Your task to perform on an android device: open app "YouTube Kids" (install if not already installed) and go to login screen Image 0: 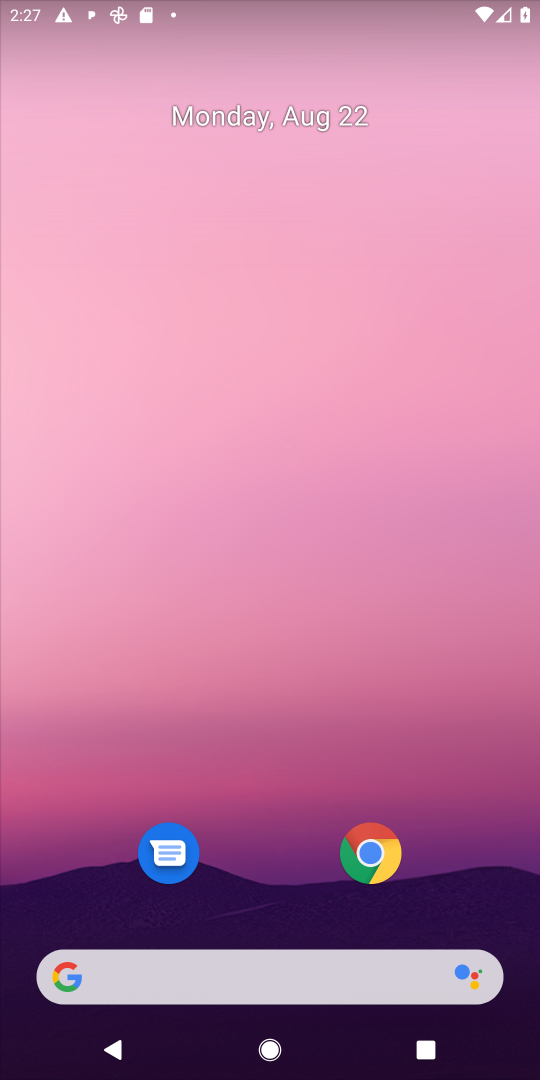
Step 0: drag from (346, 886) to (319, 41)
Your task to perform on an android device: open app "YouTube Kids" (install if not already installed) and go to login screen Image 1: 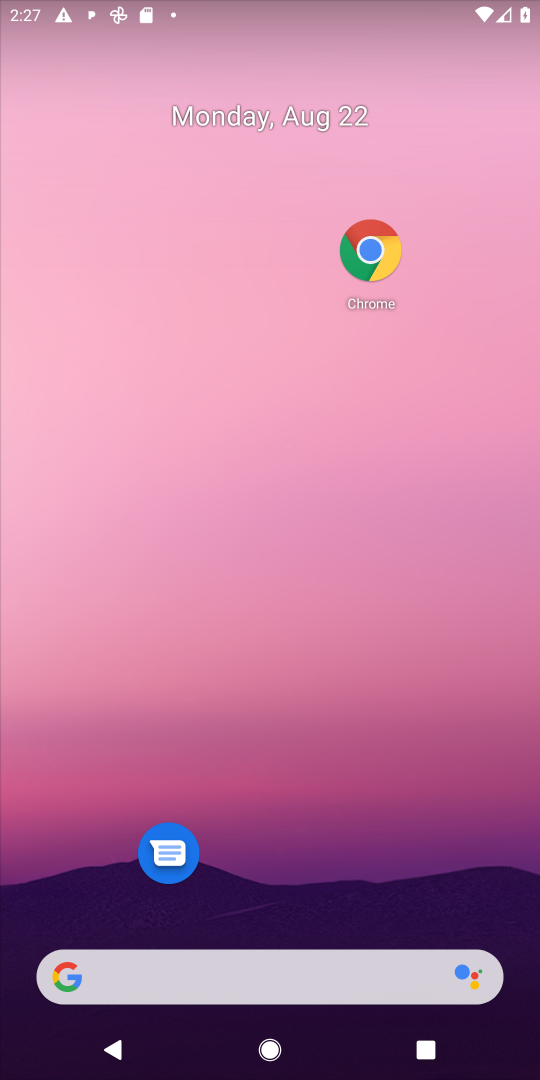
Step 1: drag from (304, 864) to (410, 90)
Your task to perform on an android device: open app "YouTube Kids" (install if not already installed) and go to login screen Image 2: 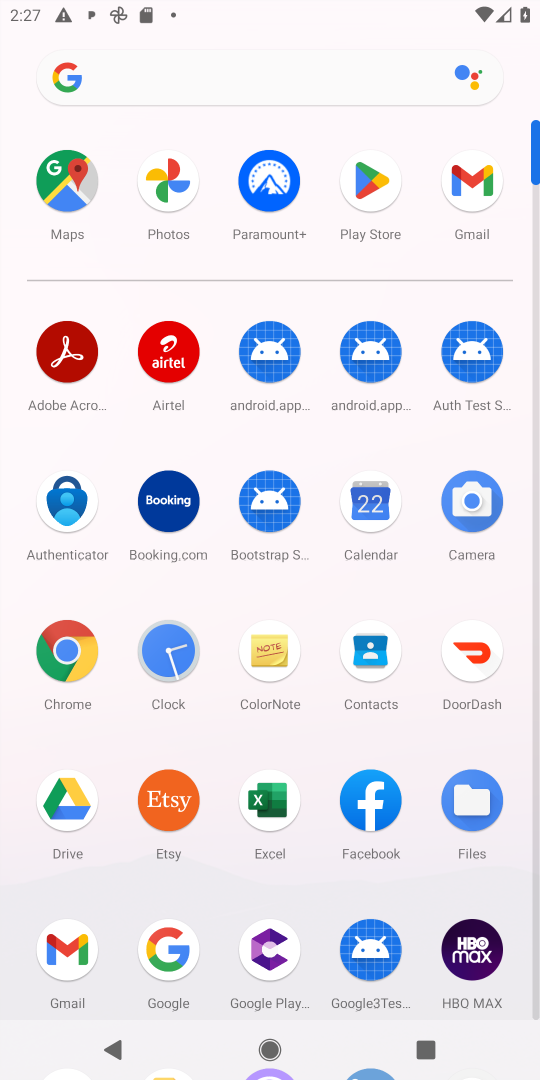
Step 2: click (362, 169)
Your task to perform on an android device: open app "YouTube Kids" (install if not already installed) and go to login screen Image 3: 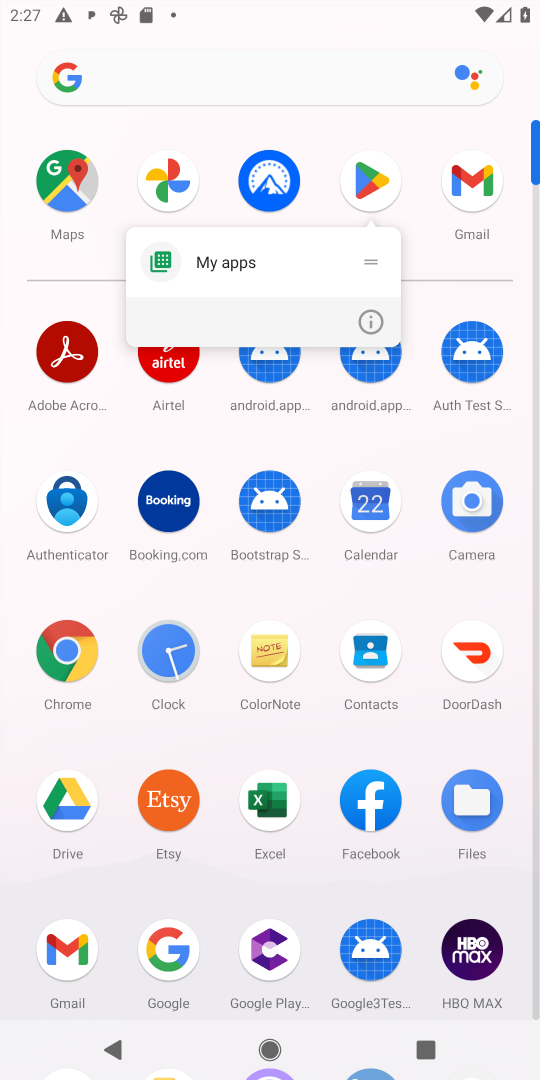
Step 3: click (357, 175)
Your task to perform on an android device: open app "YouTube Kids" (install if not already installed) and go to login screen Image 4: 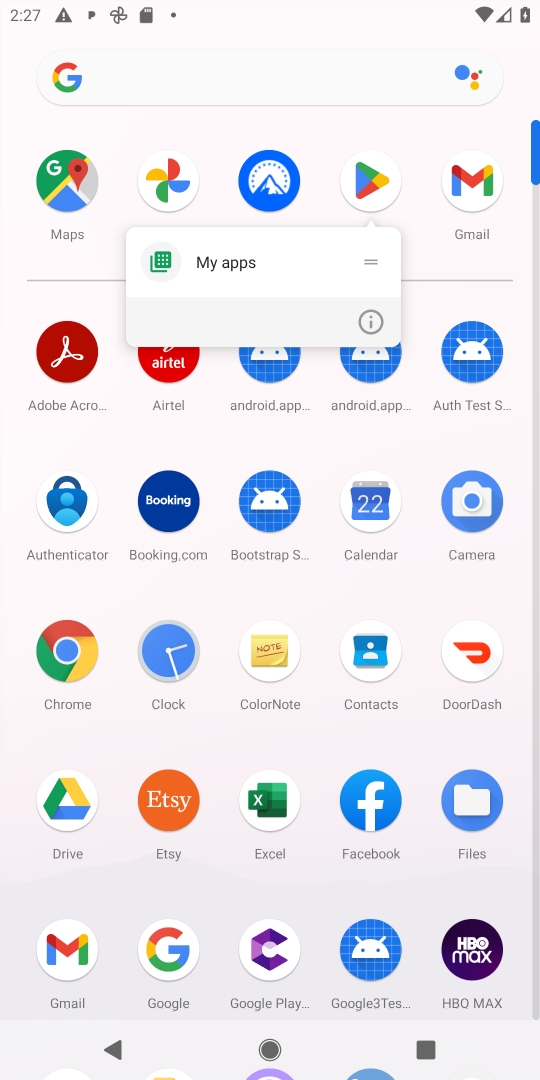
Step 4: click (370, 181)
Your task to perform on an android device: open app "YouTube Kids" (install if not already installed) and go to login screen Image 5: 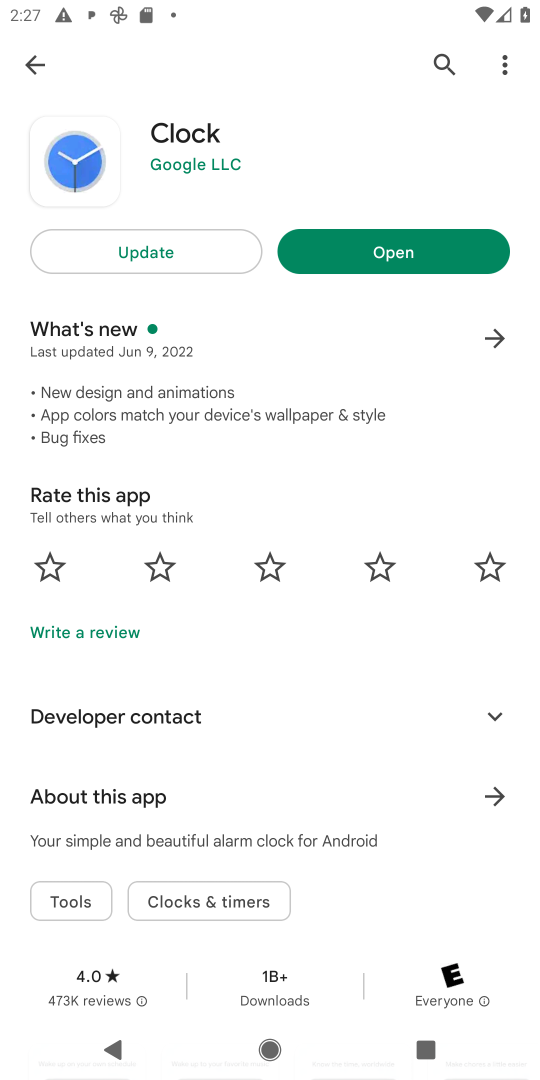
Step 5: click (370, 181)
Your task to perform on an android device: open app "YouTube Kids" (install if not already installed) and go to login screen Image 6: 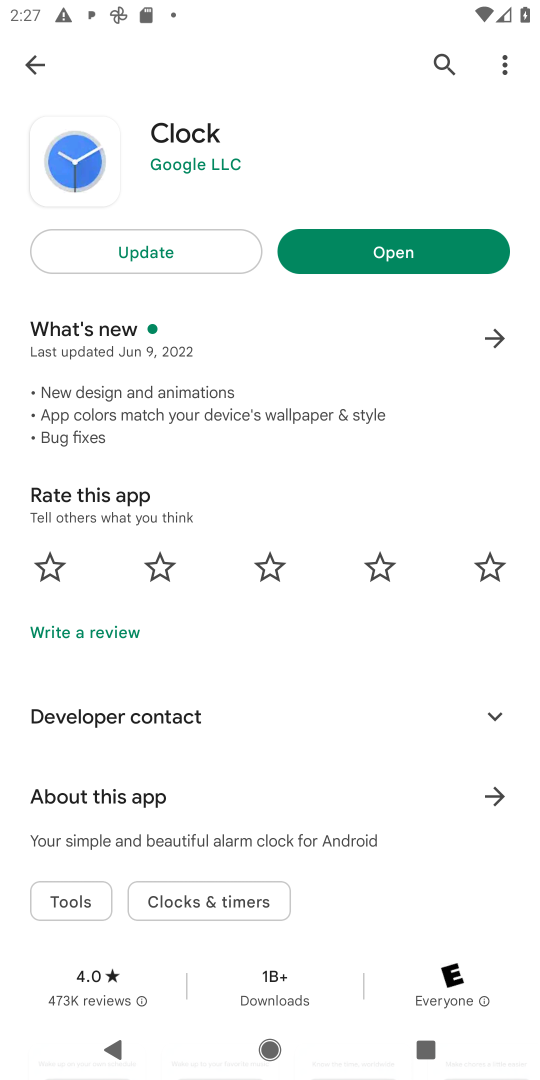
Step 6: click (57, 56)
Your task to perform on an android device: open app "YouTube Kids" (install if not already installed) and go to login screen Image 7: 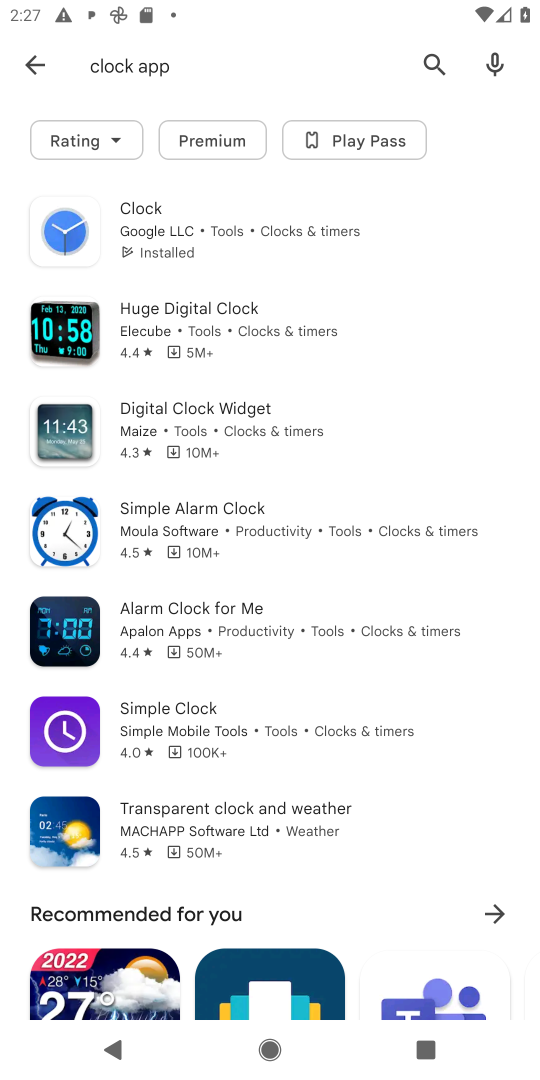
Step 7: click (44, 67)
Your task to perform on an android device: open app "YouTube Kids" (install if not already installed) and go to login screen Image 8: 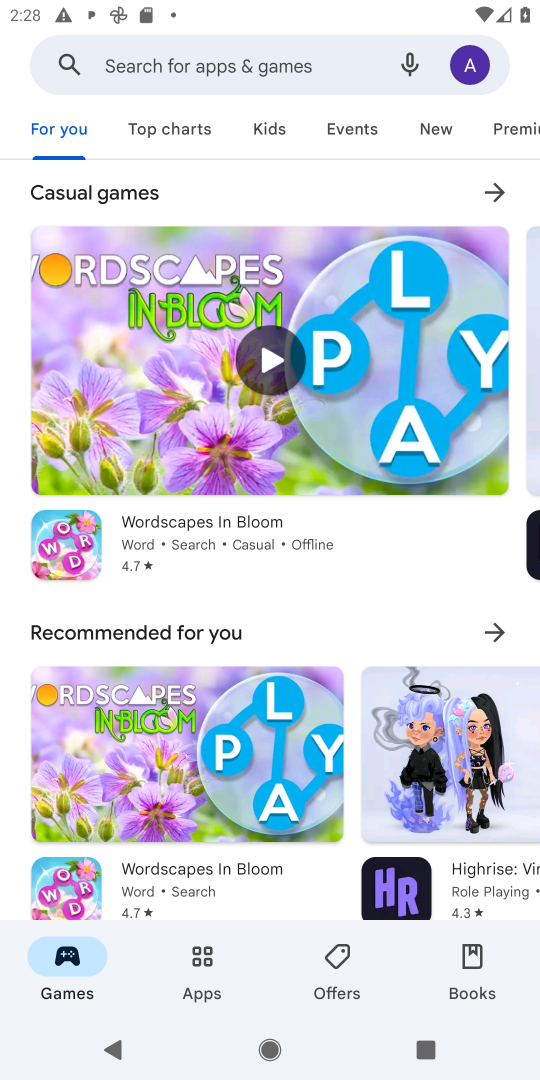
Step 8: click (222, 58)
Your task to perform on an android device: open app "YouTube Kids" (install if not already installed) and go to login screen Image 9: 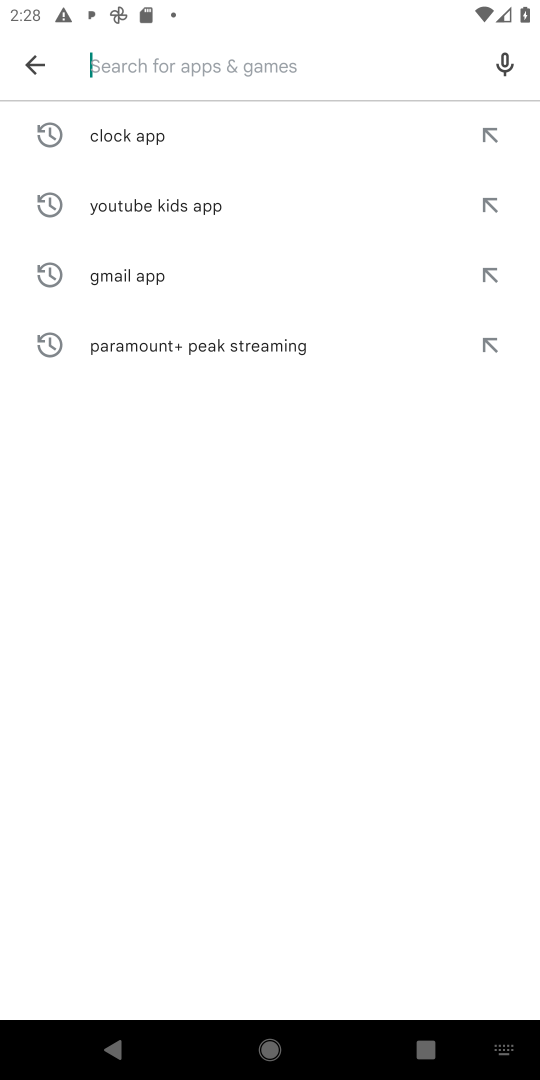
Step 9: type "YouTube Kids "
Your task to perform on an android device: open app "YouTube Kids" (install if not already installed) and go to login screen Image 10: 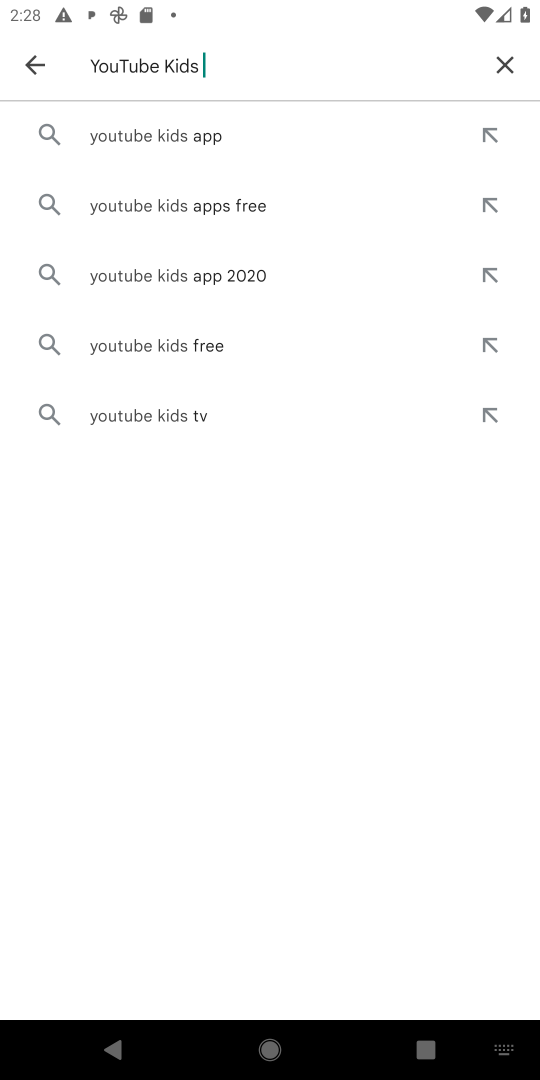
Step 10: click (193, 125)
Your task to perform on an android device: open app "YouTube Kids" (install if not already installed) and go to login screen Image 11: 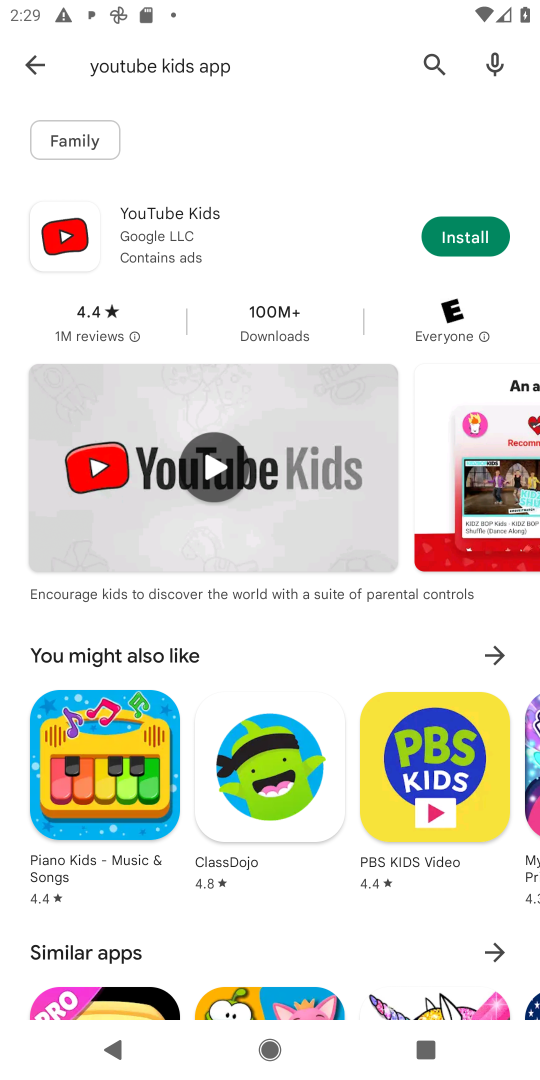
Step 11: click (481, 230)
Your task to perform on an android device: open app "YouTube Kids" (install if not already installed) and go to login screen Image 12: 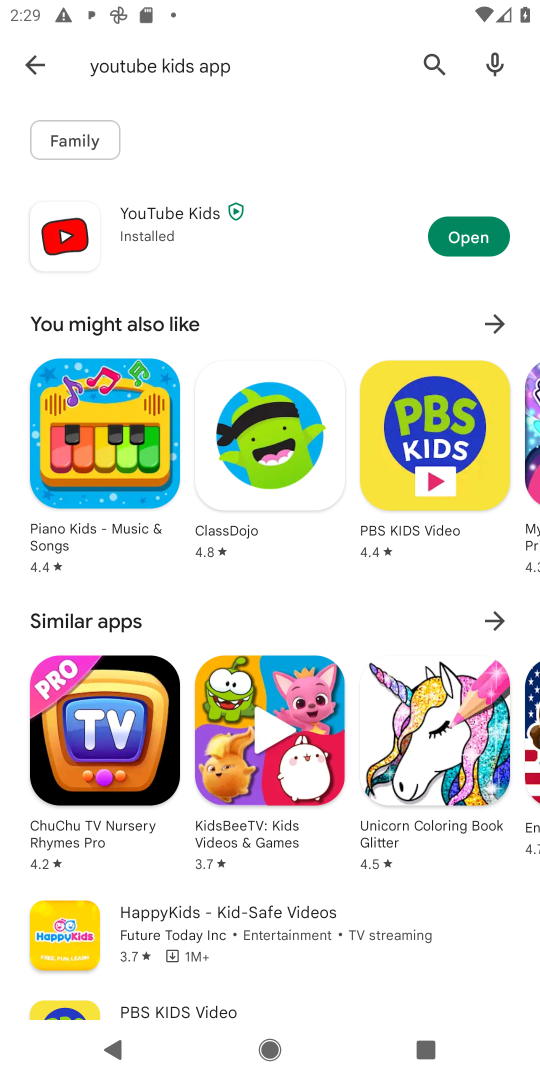
Step 12: click (481, 230)
Your task to perform on an android device: open app "YouTube Kids" (install if not already installed) and go to login screen Image 13: 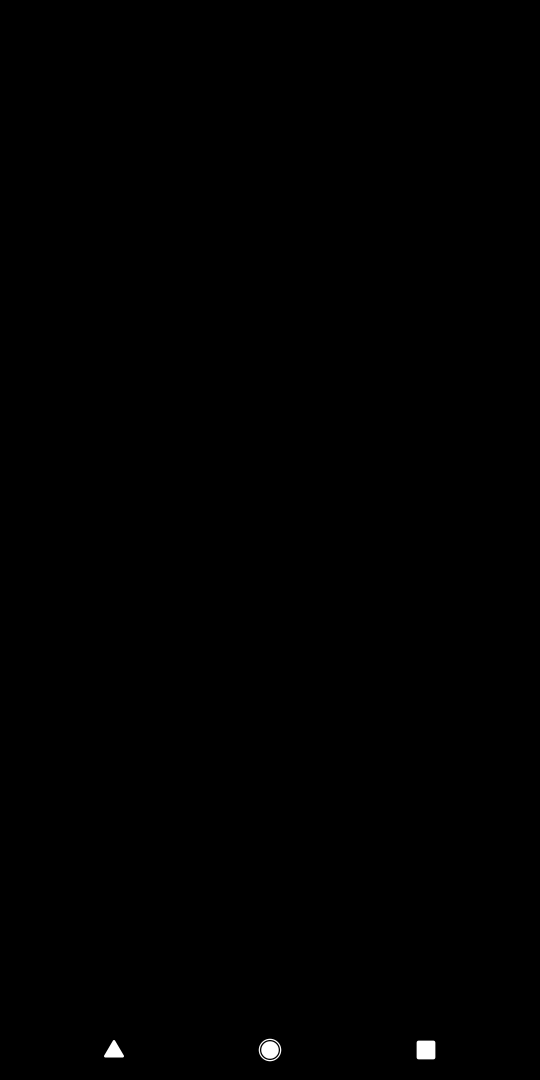
Step 13: task complete